Your task to perform on an android device: turn notification dots off Image 0: 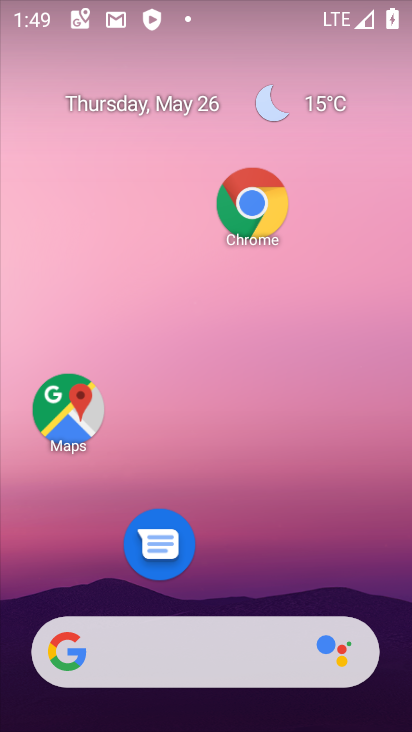
Step 0: drag from (134, 410) to (162, 87)
Your task to perform on an android device: turn notification dots off Image 1: 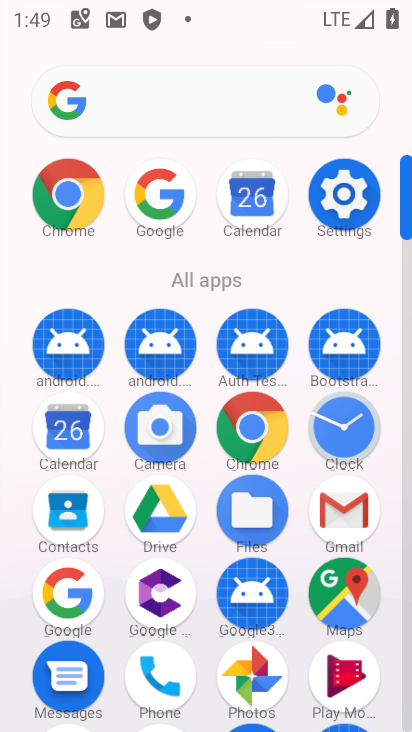
Step 1: click (334, 189)
Your task to perform on an android device: turn notification dots off Image 2: 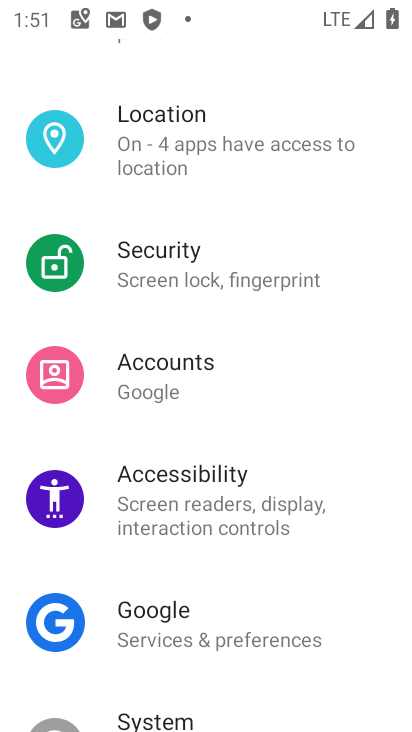
Step 2: drag from (228, 579) to (151, 90)
Your task to perform on an android device: turn notification dots off Image 3: 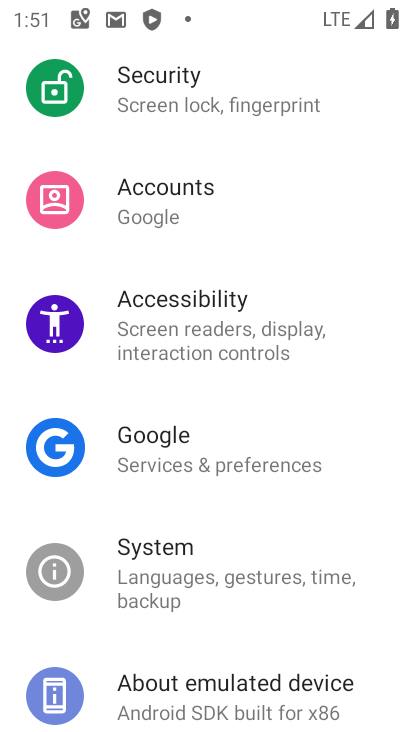
Step 3: drag from (294, 347) to (292, 694)
Your task to perform on an android device: turn notification dots off Image 4: 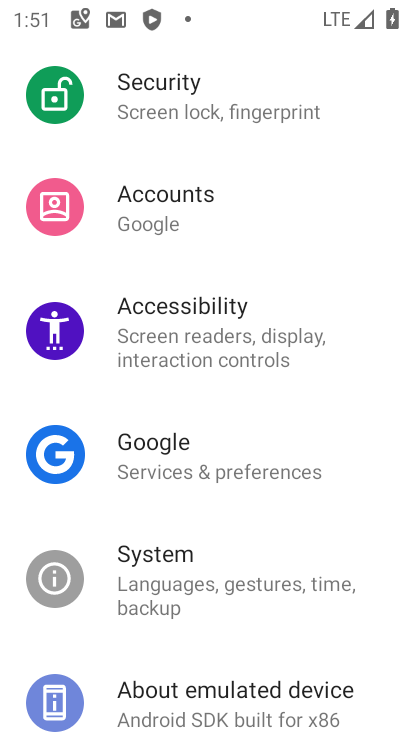
Step 4: drag from (391, 274) to (338, 655)
Your task to perform on an android device: turn notification dots off Image 5: 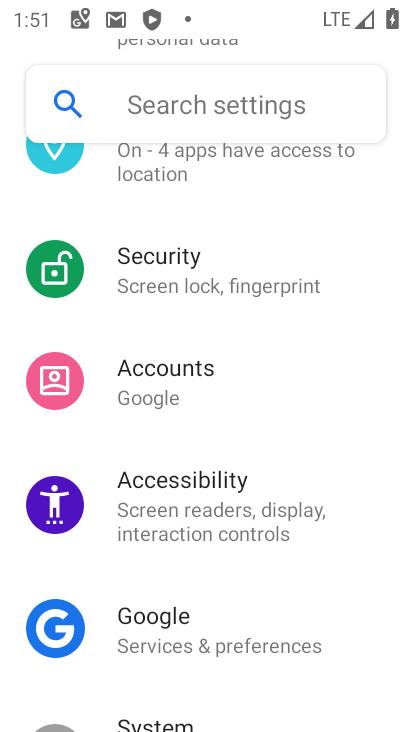
Step 5: drag from (289, 199) to (289, 669)
Your task to perform on an android device: turn notification dots off Image 6: 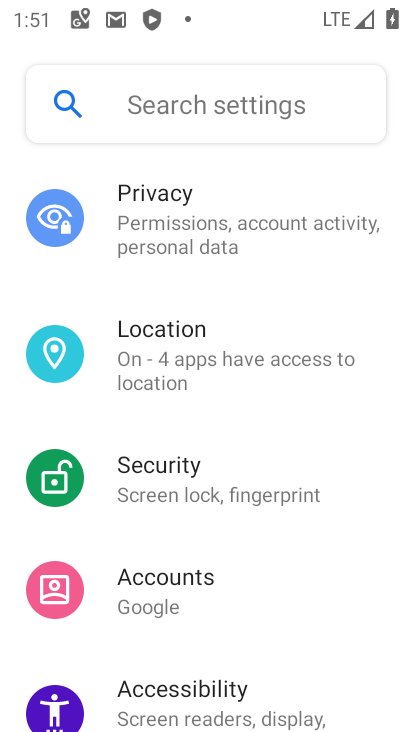
Step 6: drag from (348, 255) to (299, 697)
Your task to perform on an android device: turn notification dots off Image 7: 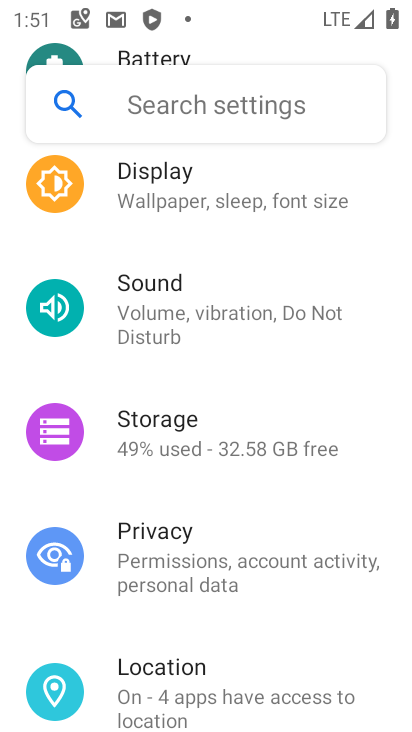
Step 7: drag from (290, 208) to (263, 691)
Your task to perform on an android device: turn notification dots off Image 8: 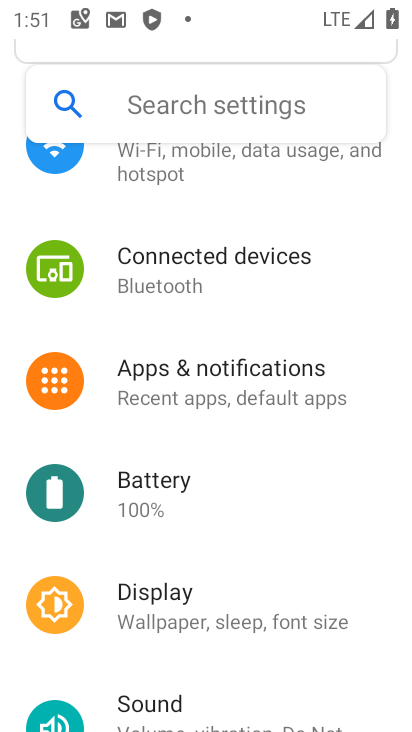
Step 8: click (250, 394)
Your task to perform on an android device: turn notification dots off Image 9: 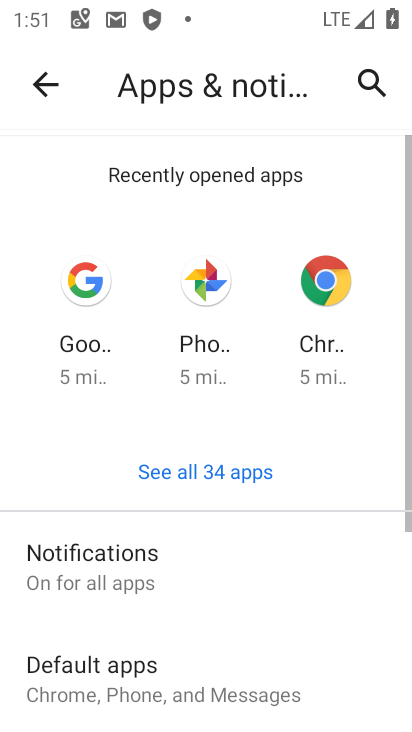
Step 9: click (134, 569)
Your task to perform on an android device: turn notification dots off Image 10: 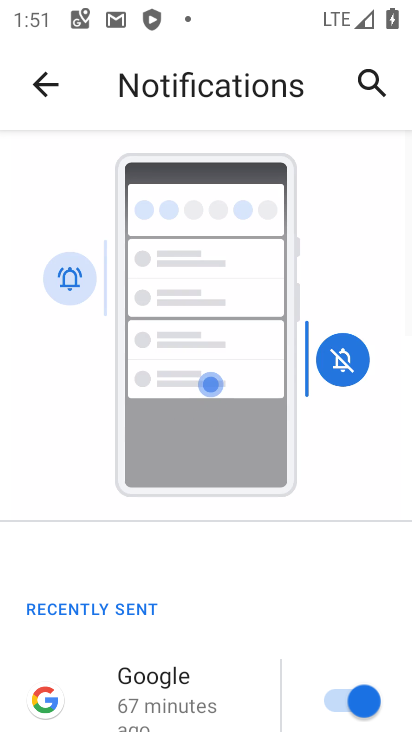
Step 10: drag from (219, 667) to (197, 117)
Your task to perform on an android device: turn notification dots off Image 11: 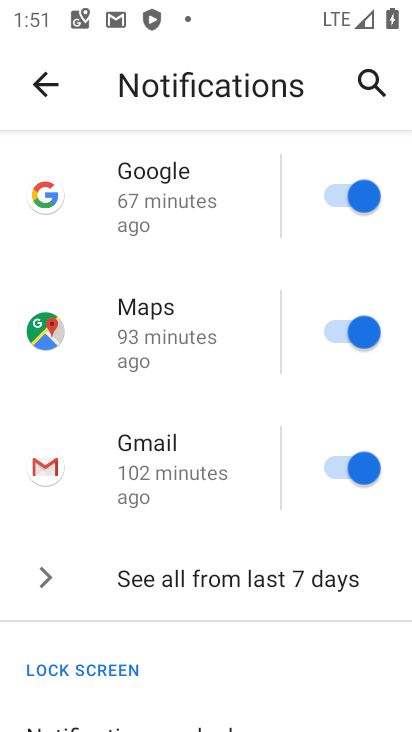
Step 11: drag from (194, 670) to (180, 137)
Your task to perform on an android device: turn notification dots off Image 12: 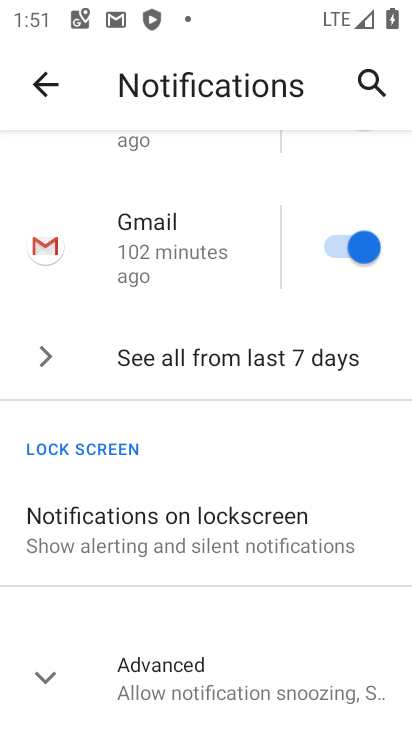
Step 12: click (157, 695)
Your task to perform on an android device: turn notification dots off Image 13: 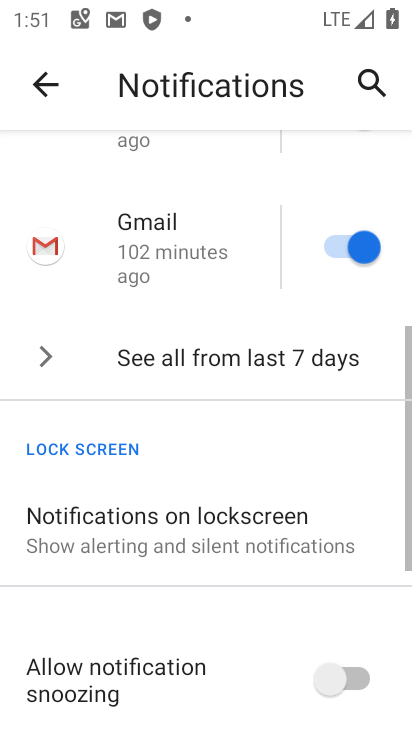
Step 13: task complete